Your task to perform on an android device: open app "Truecaller" (install if not already installed) Image 0: 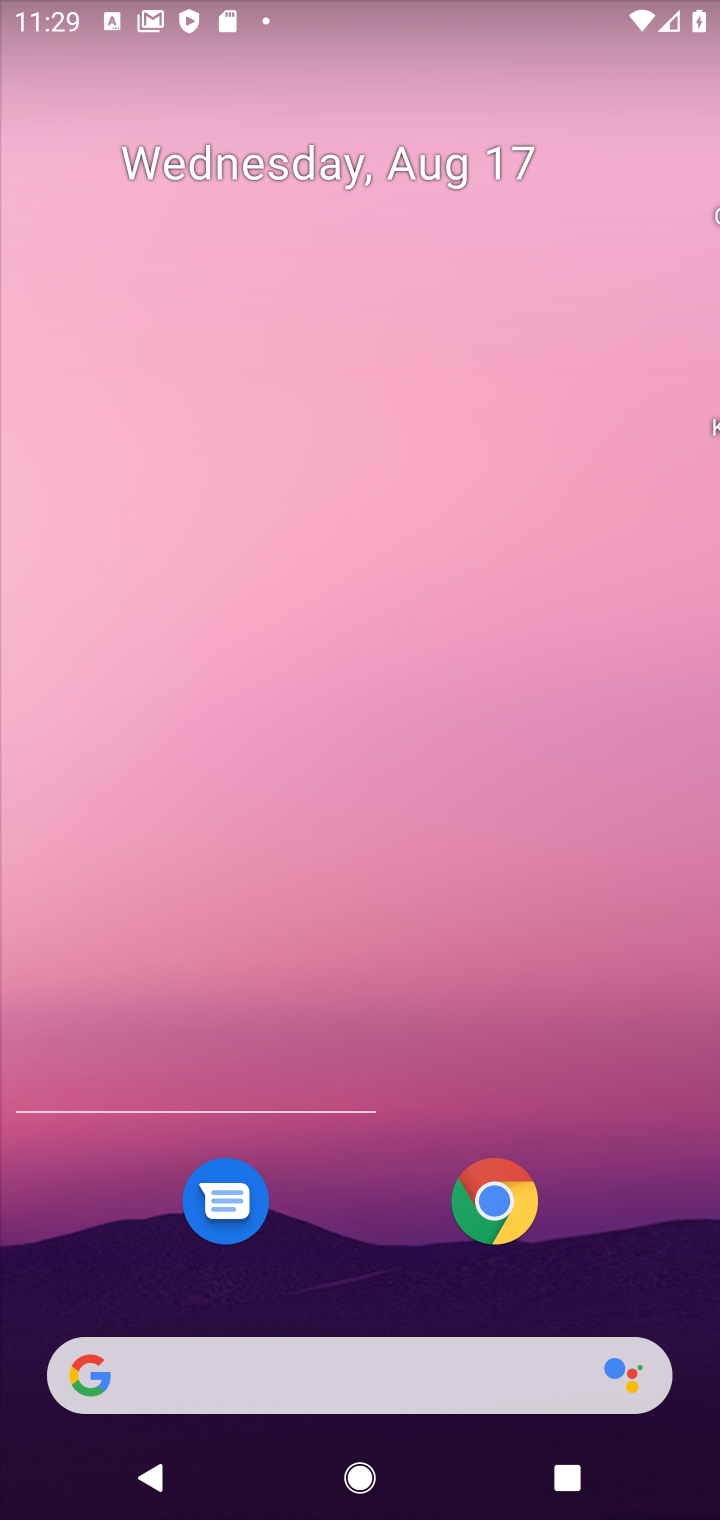
Step 0: press home button
Your task to perform on an android device: open app "Truecaller" (install if not already installed) Image 1: 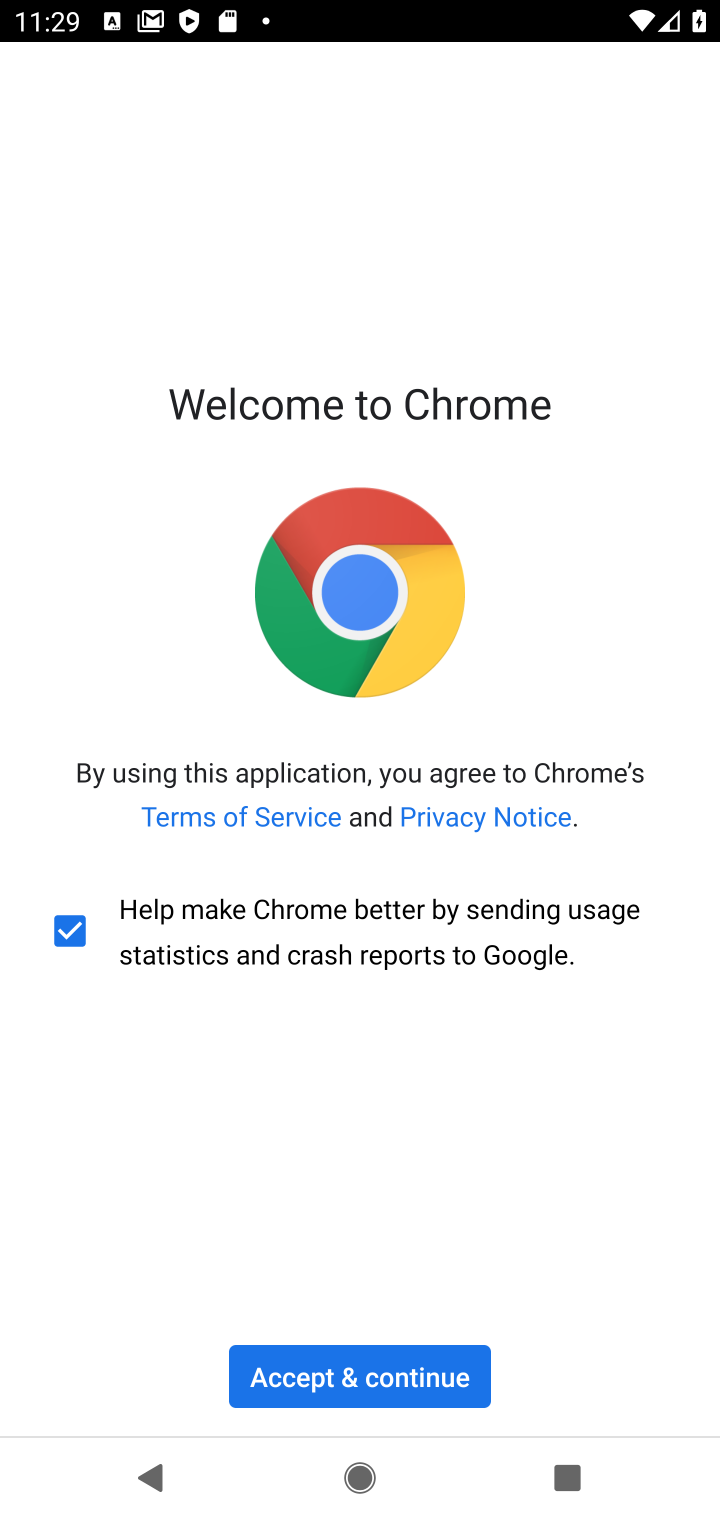
Step 1: drag from (394, 1267) to (445, 161)
Your task to perform on an android device: open app "Truecaller" (install if not already installed) Image 2: 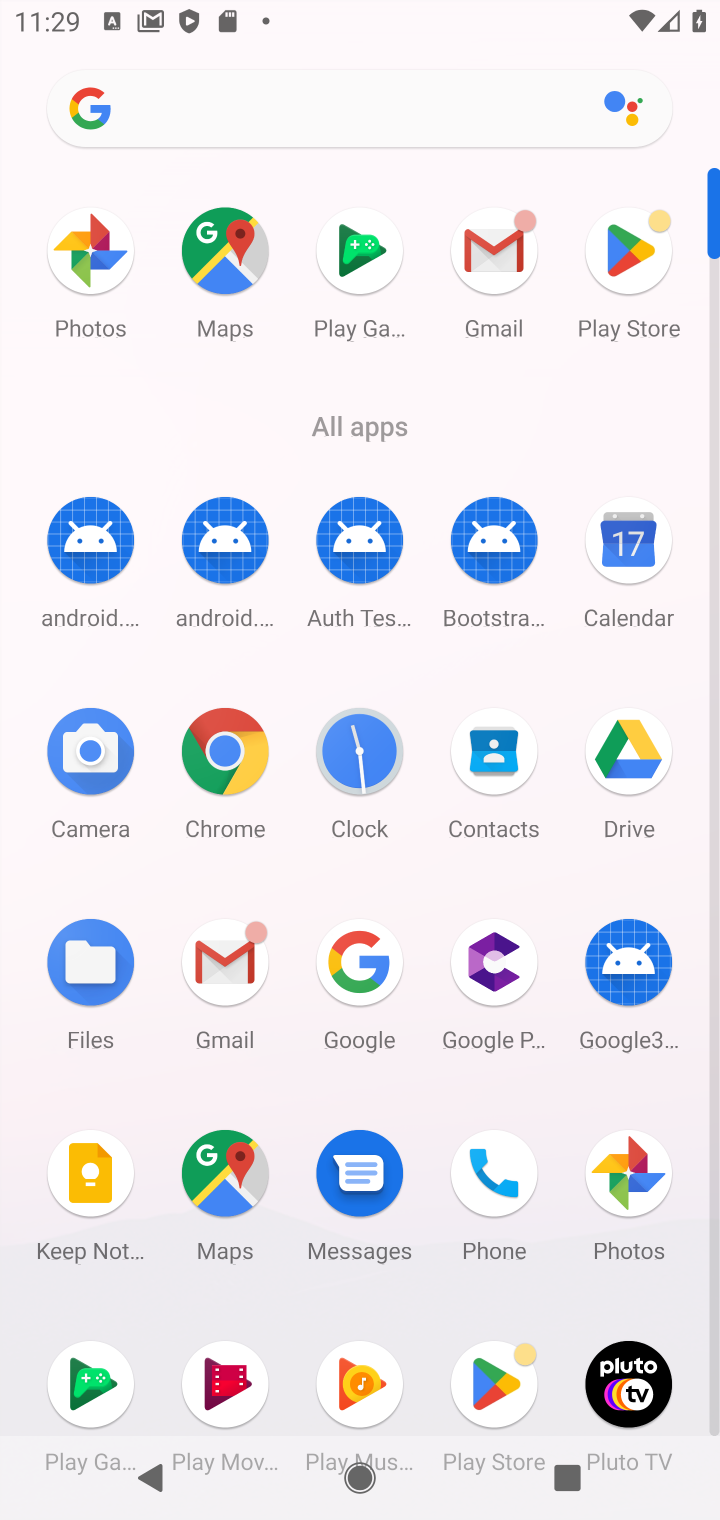
Step 2: click (639, 269)
Your task to perform on an android device: open app "Truecaller" (install if not already installed) Image 3: 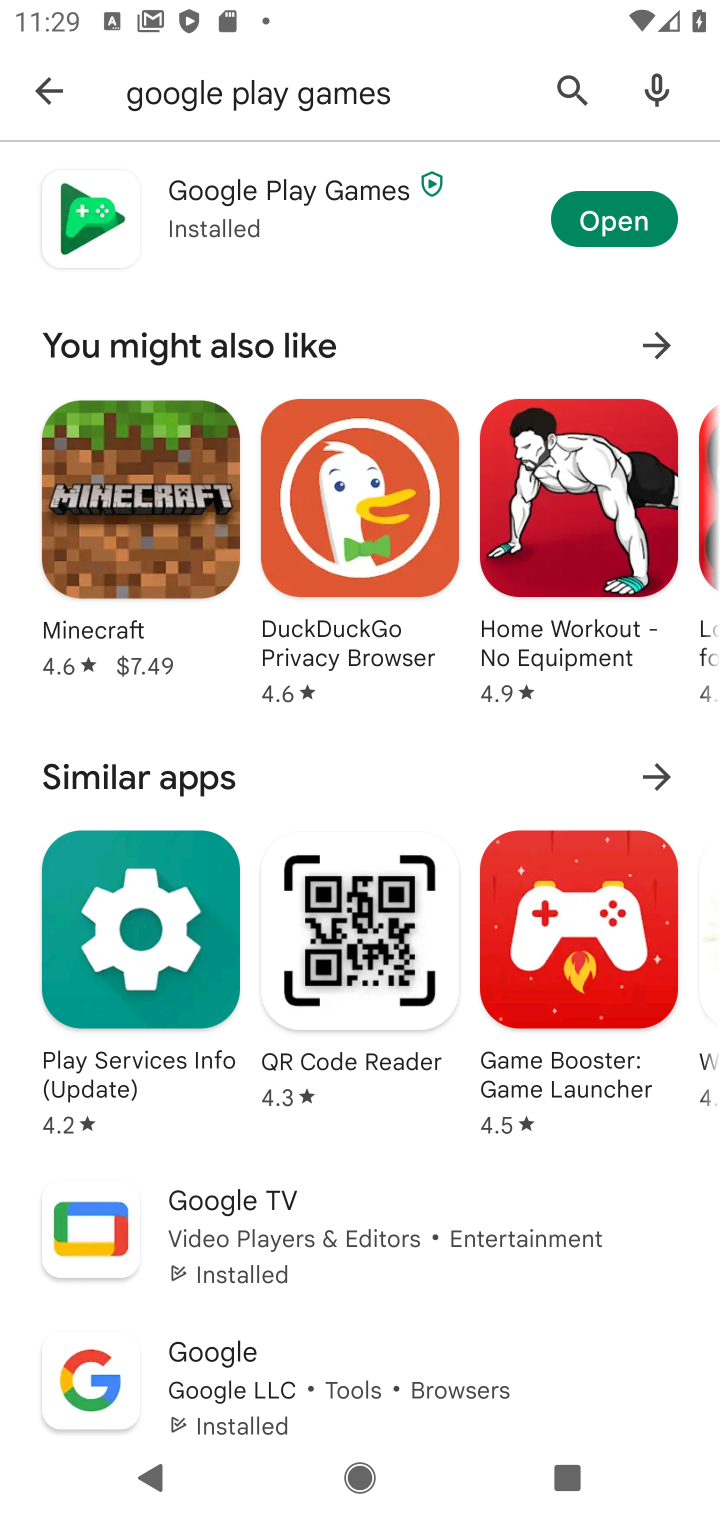
Step 3: click (239, 102)
Your task to perform on an android device: open app "Truecaller" (install if not already installed) Image 4: 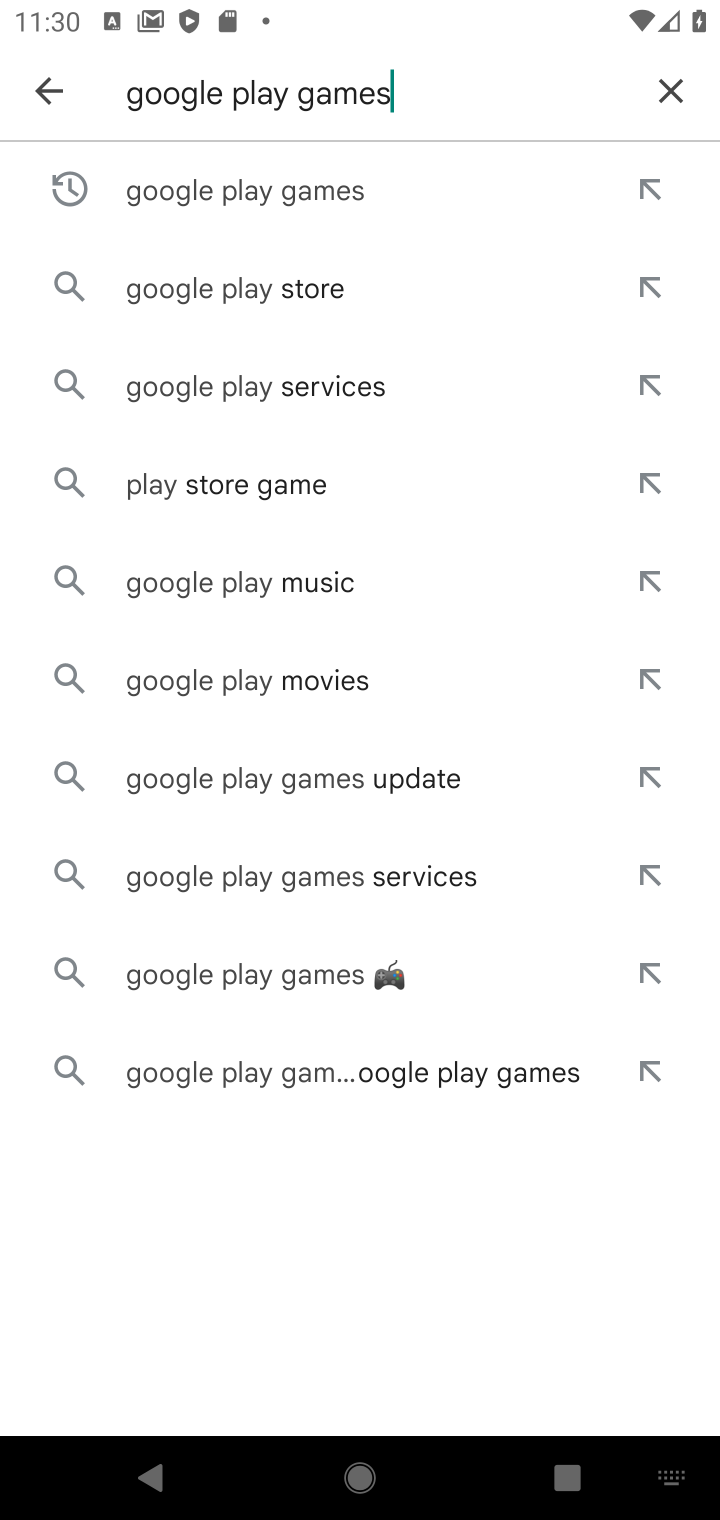
Step 4: click (691, 88)
Your task to perform on an android device: open app "Truecaller" (install if not already installed) Image 5: 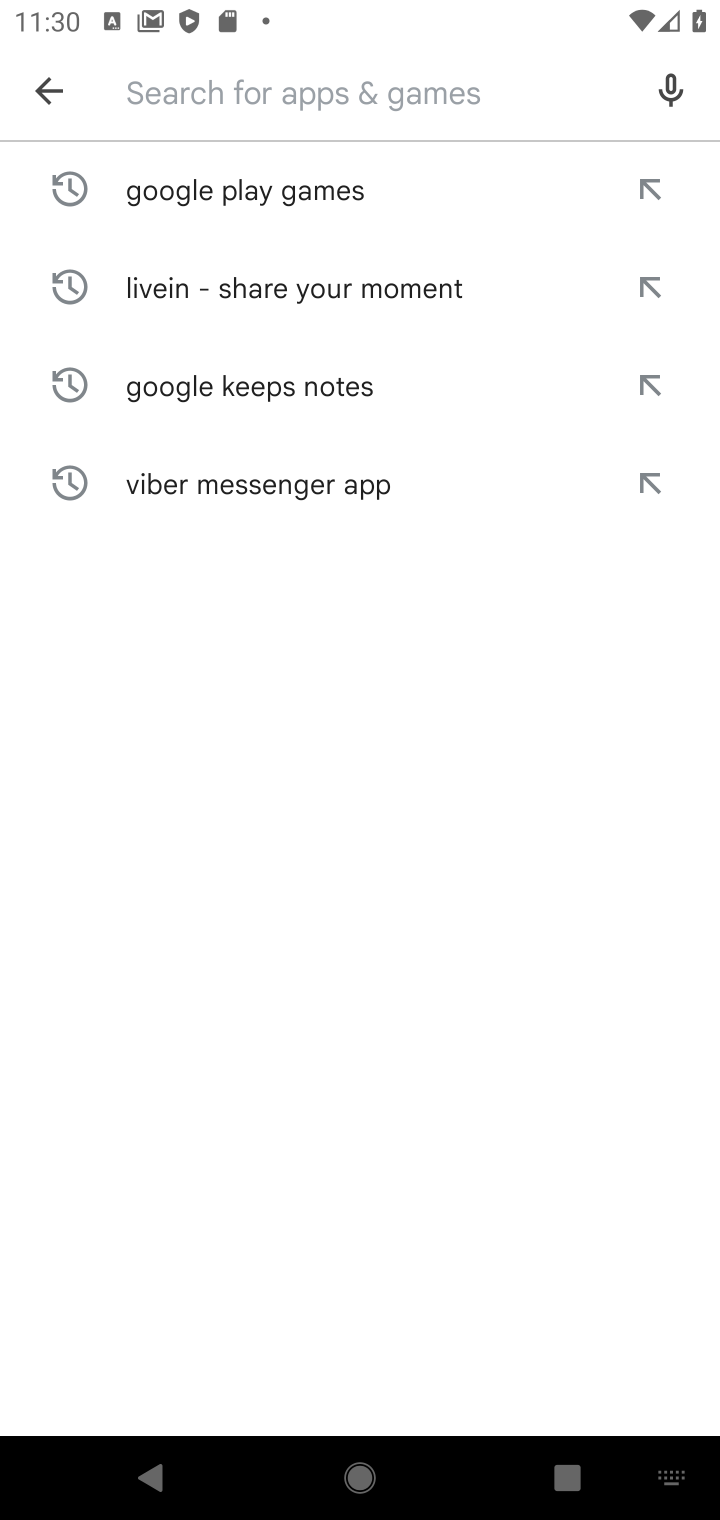
Step 5: type "truecaller"
Your task to perform on an android device: open app "Truecaller" (install if not already installed) Image 6: 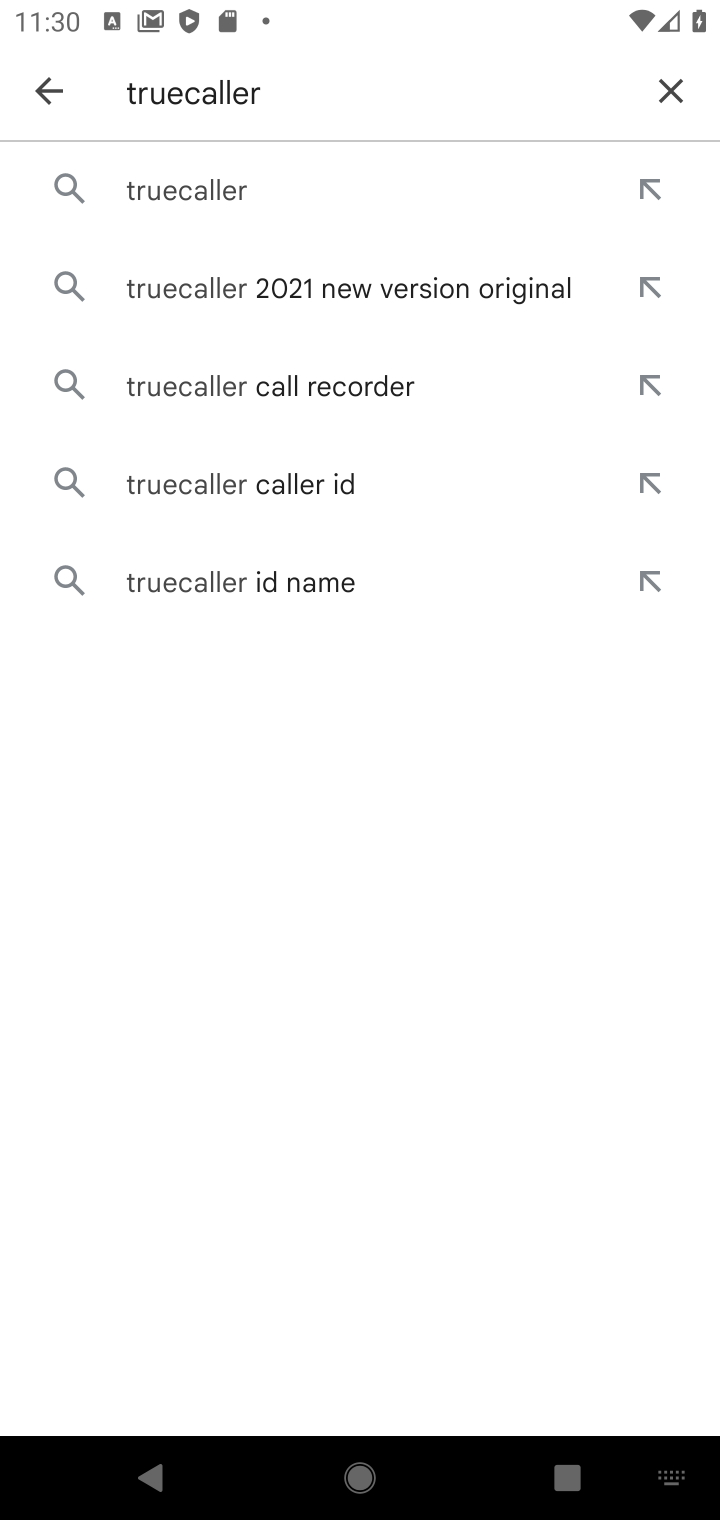
Step 6: click (221, 179)
Your task to perform on an android device: open app "Truecaller" (install if not already installed) Image 7: 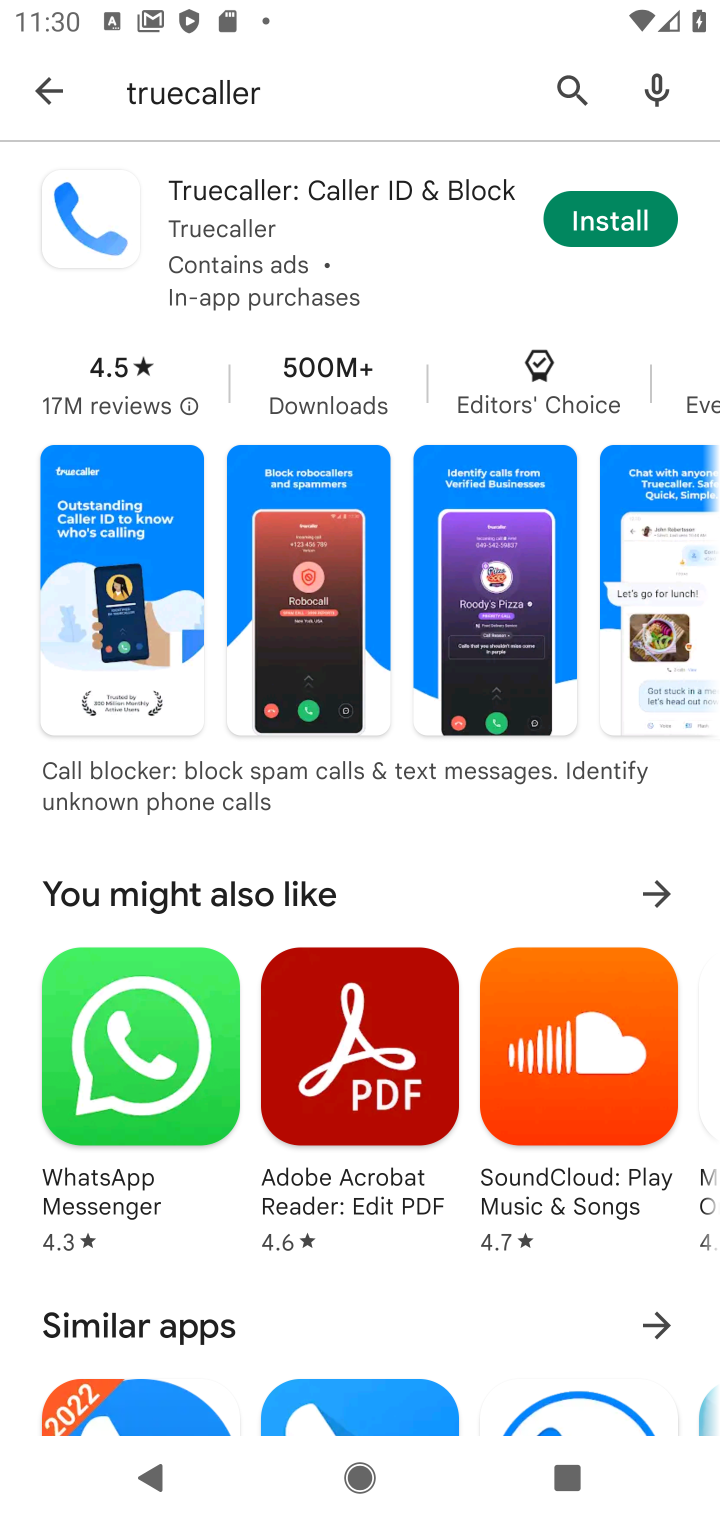
Step 7: click (591, 217)
Your task to perform on an android device: open app "Truecaller" (install if not already installed) Image 8: 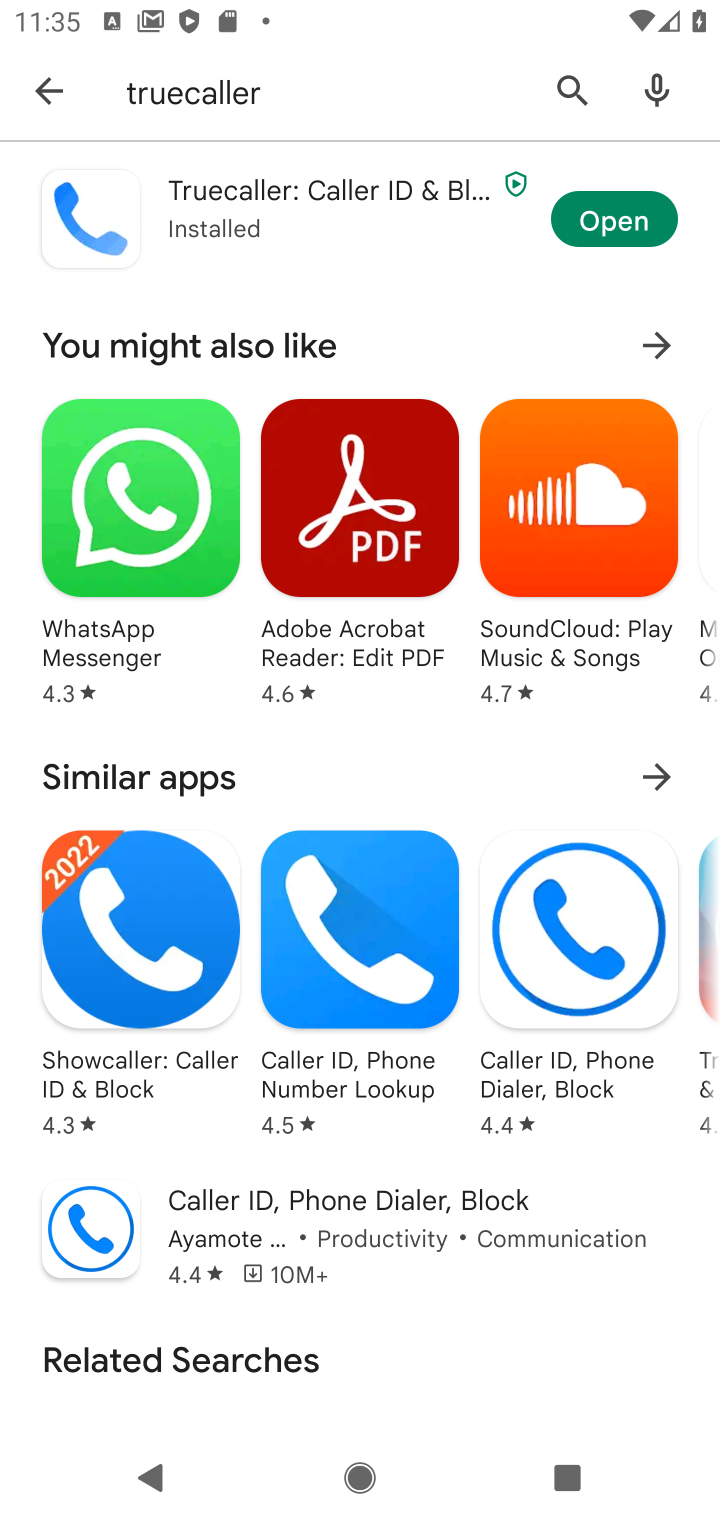
Step 8: click (599, 240)
Your task to perform on an android device: open app "Truecaller" (install if not already installed) Image 9: 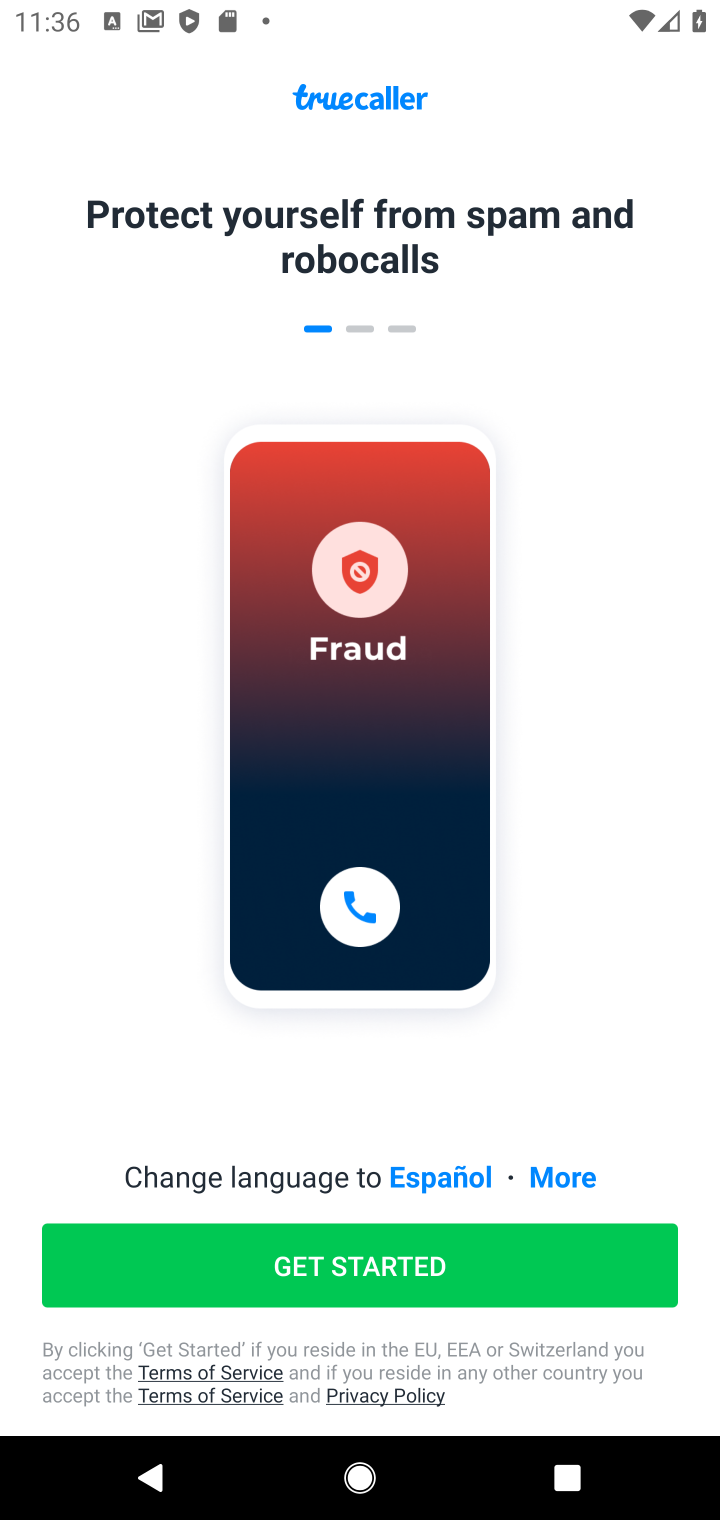
Step 9: click (557, 1249)
Your task to perform on an android device: open app "Truecaller" (install if not already installed) Image 10: 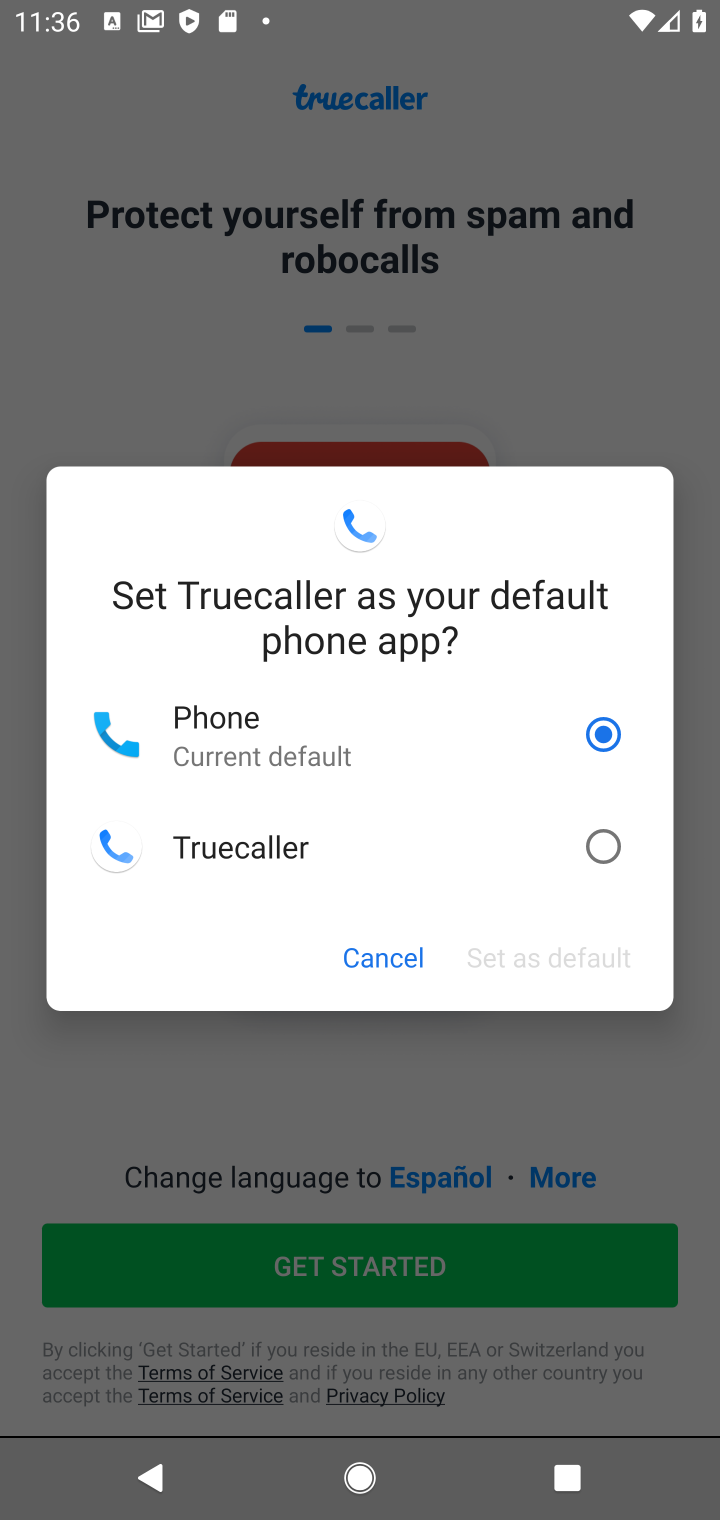
Step 10: click (592, 840)
Your task to perform on an android device: open app "Truecaller" (install if not already installed) Image 11: 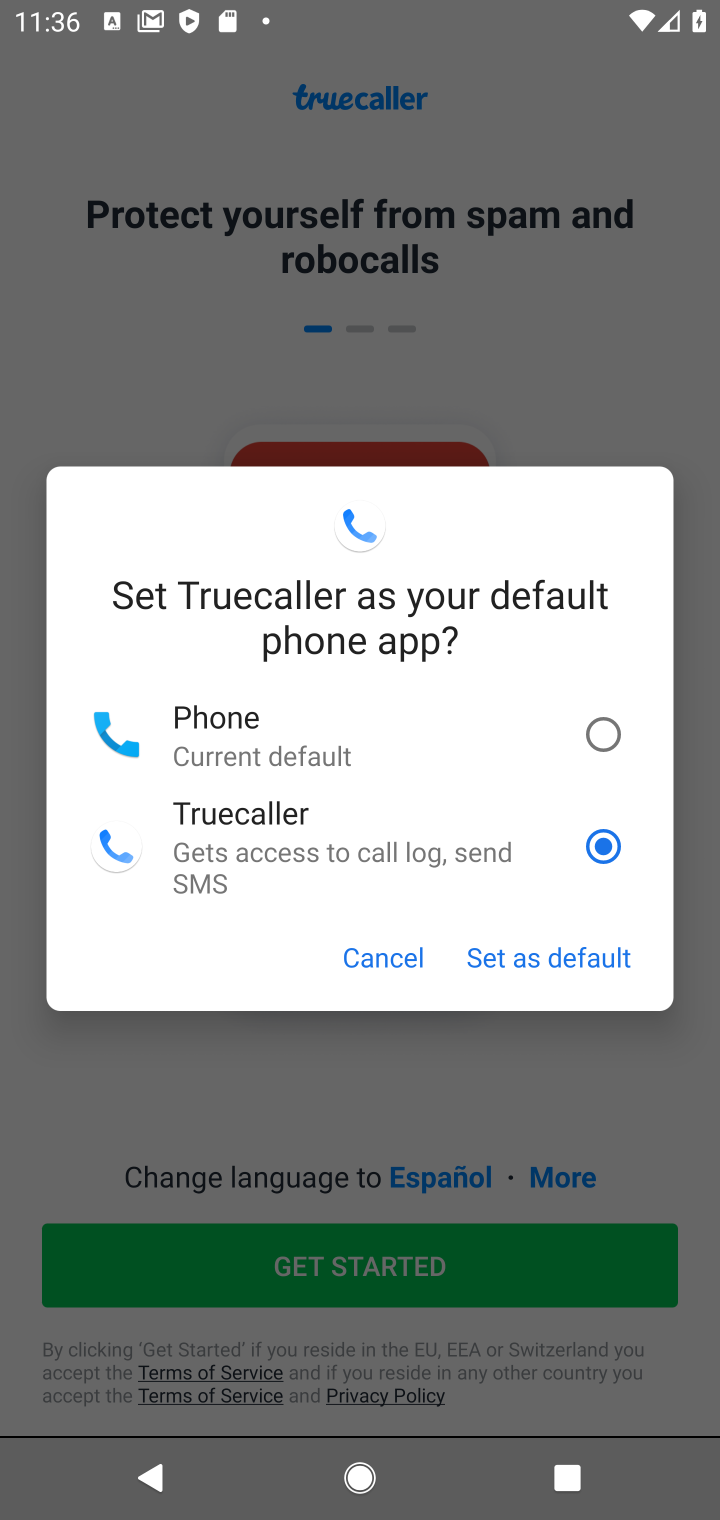
Step 11: click (583, 964)
Your task to perform on an android device: open app "Truecaller" (install if not already installed) Image 12: 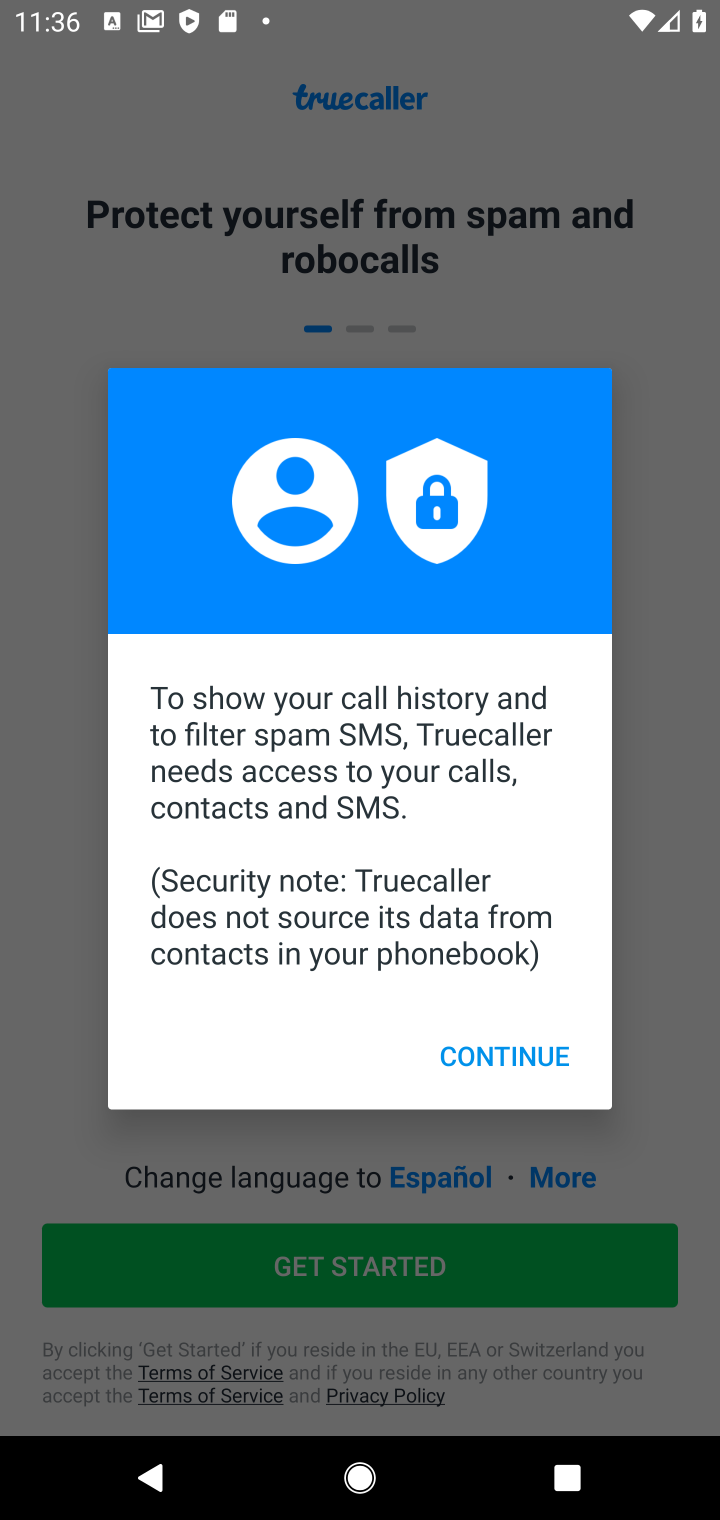
Step 12: click (527, 1045)
Your task to perform on an android device: open app "Truecaller" (install if not already installed) Image 13: 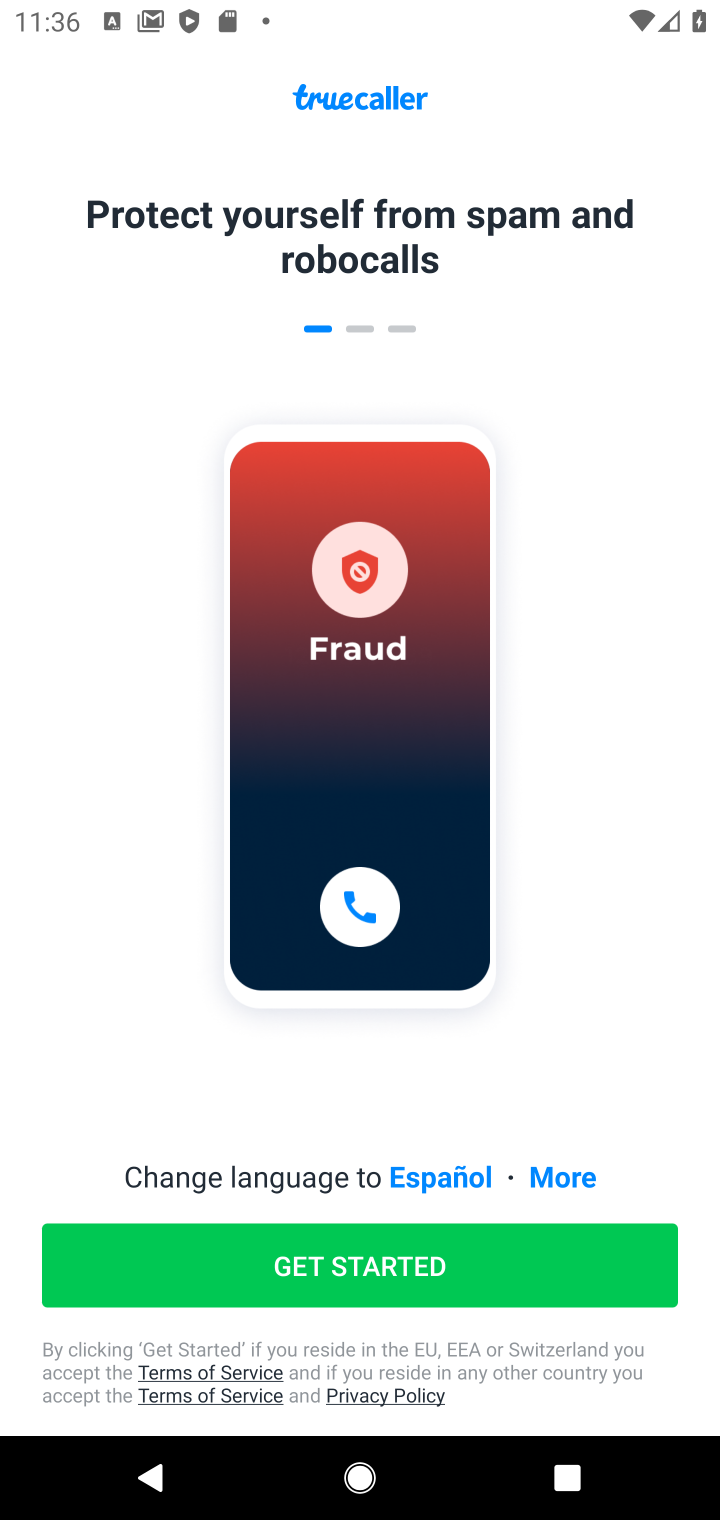
Step 13: click (434, 1254)
Your task to perform on an android device: open app "Truecaller" (install if not already installed) Image 14: 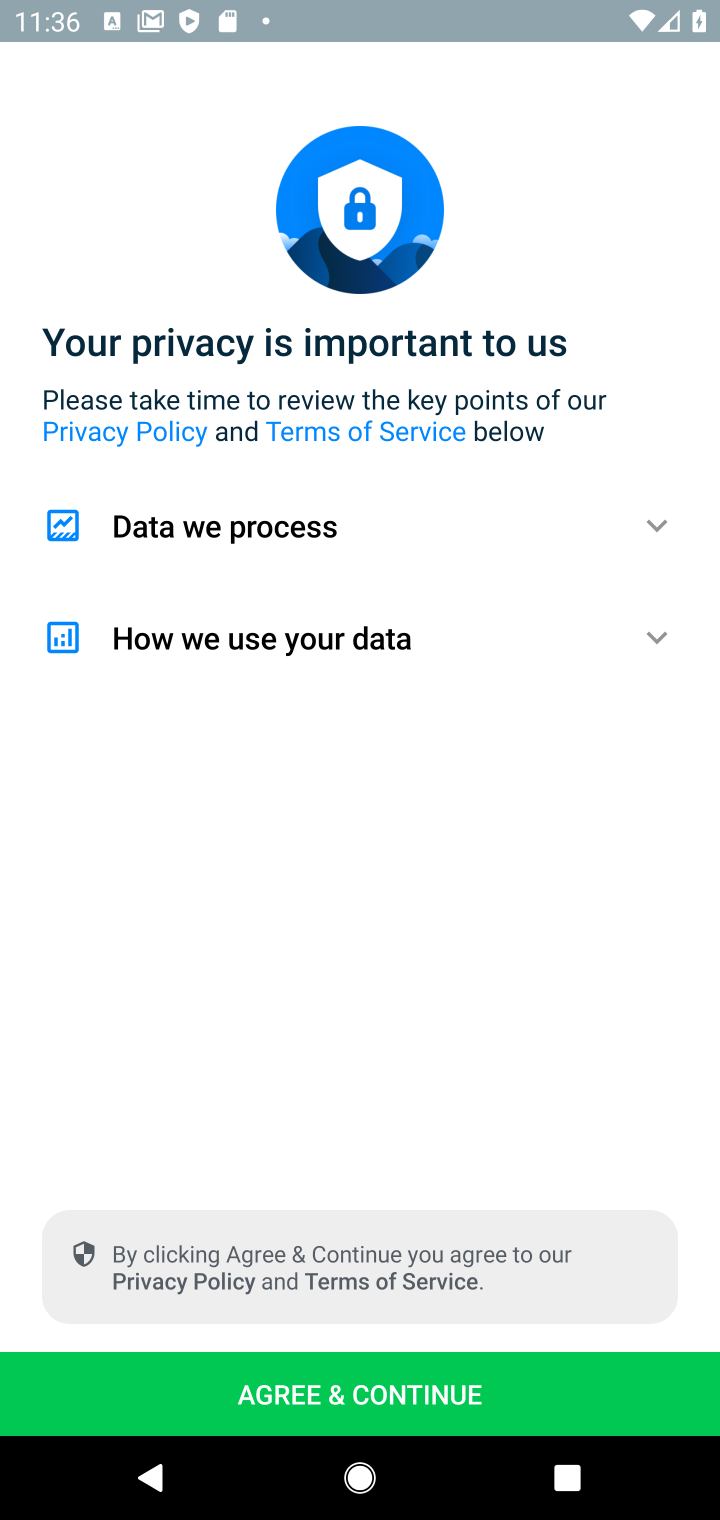
Step 14: click (383, 1389)
Your task to perform on an android device: open app "Truecaller" (install if not already installed) Image 15: 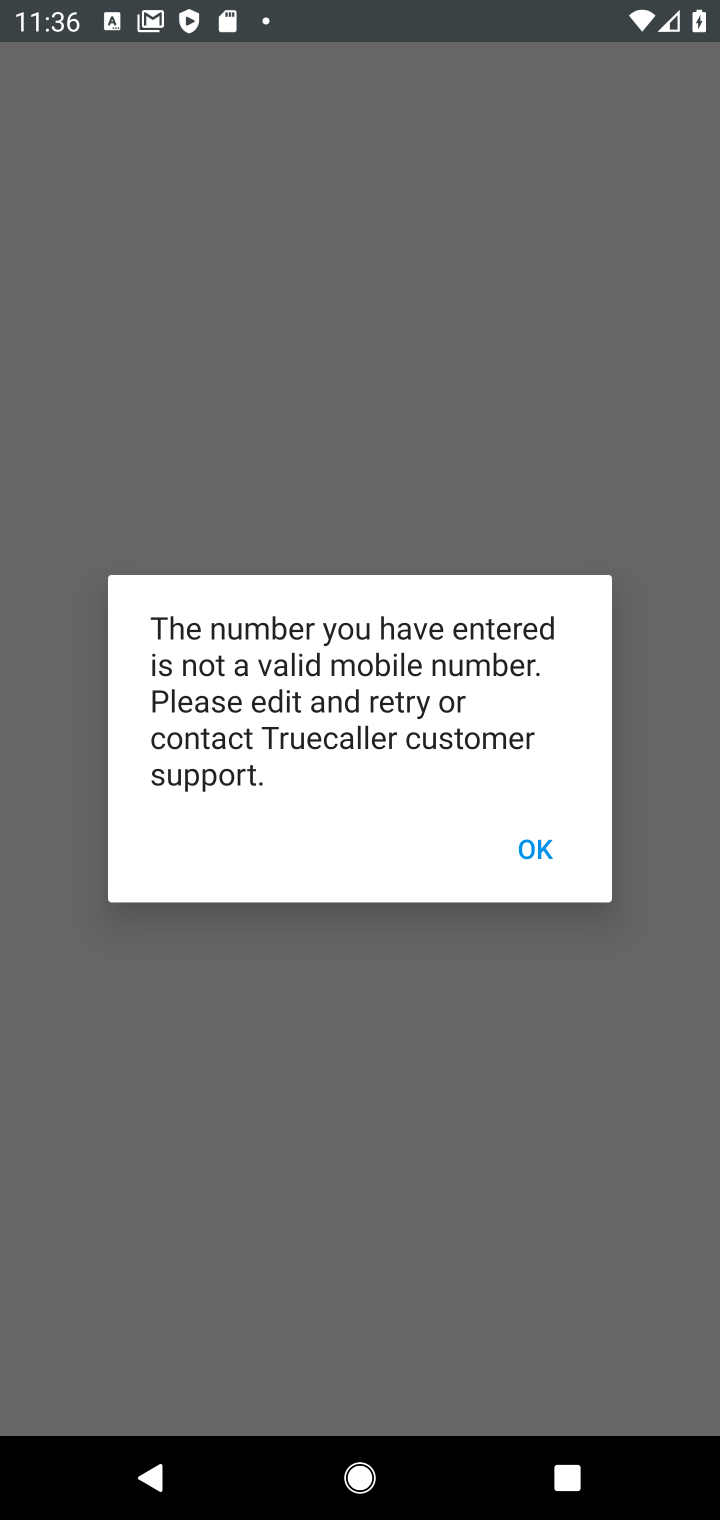
Step 15: click (534, 845)
Your task to perform on an android device: open app "Truecaller" (install if not already installed) Image 16: 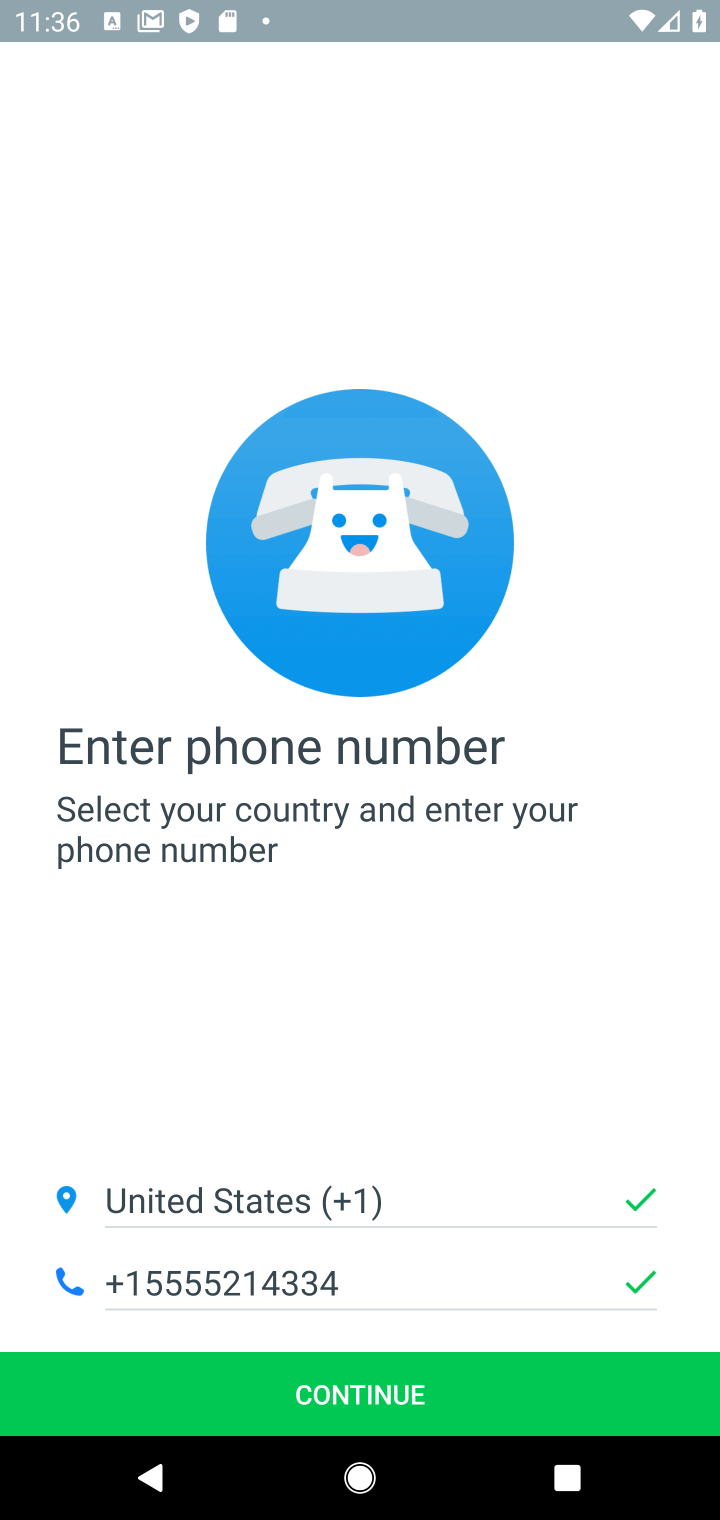
Step 16: click (352, 1399)
Your task to perform on an android device: open app "Truecaller" (install if not already installed) Image 17: 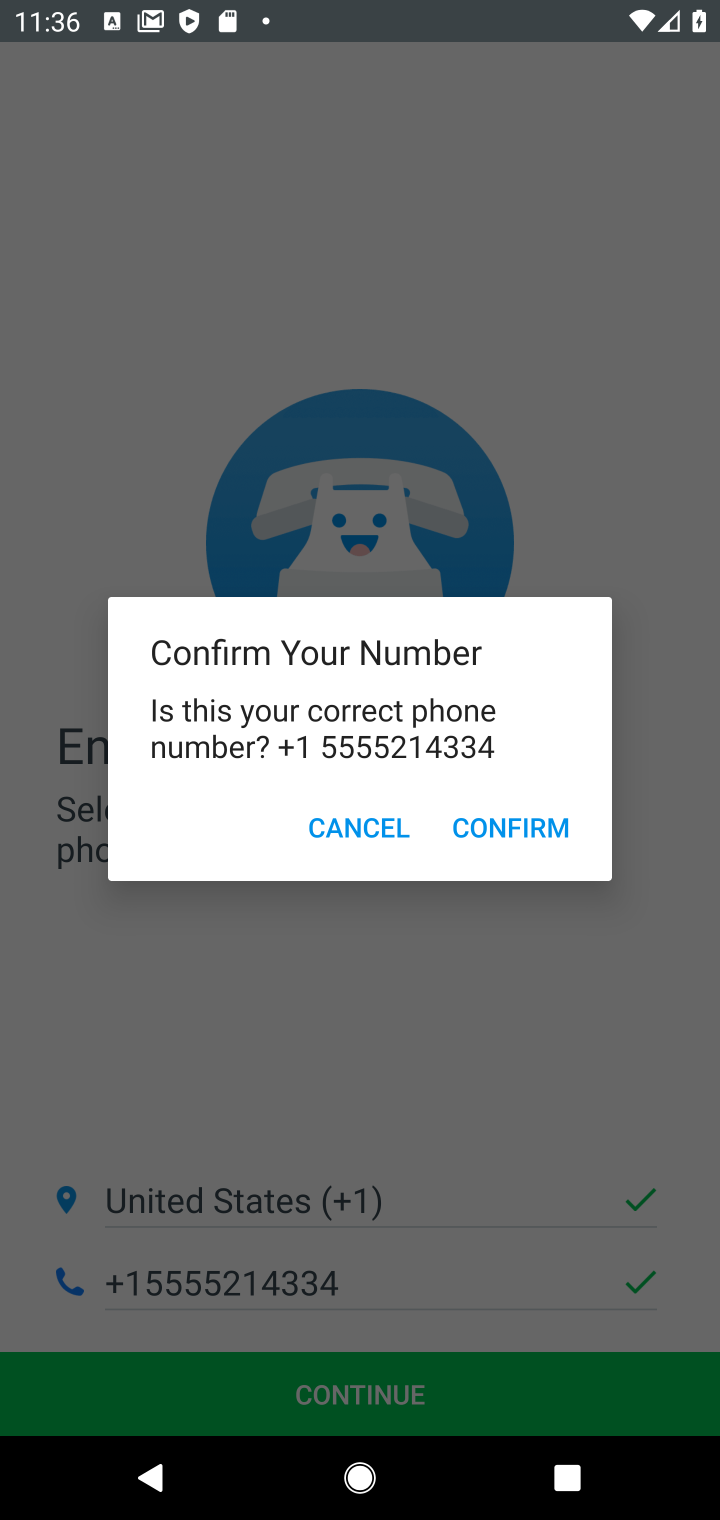
Step 17: click (509, 831)
Your task to perform on an android device: open app "Truecaller" (install if not already installed) Image 18: 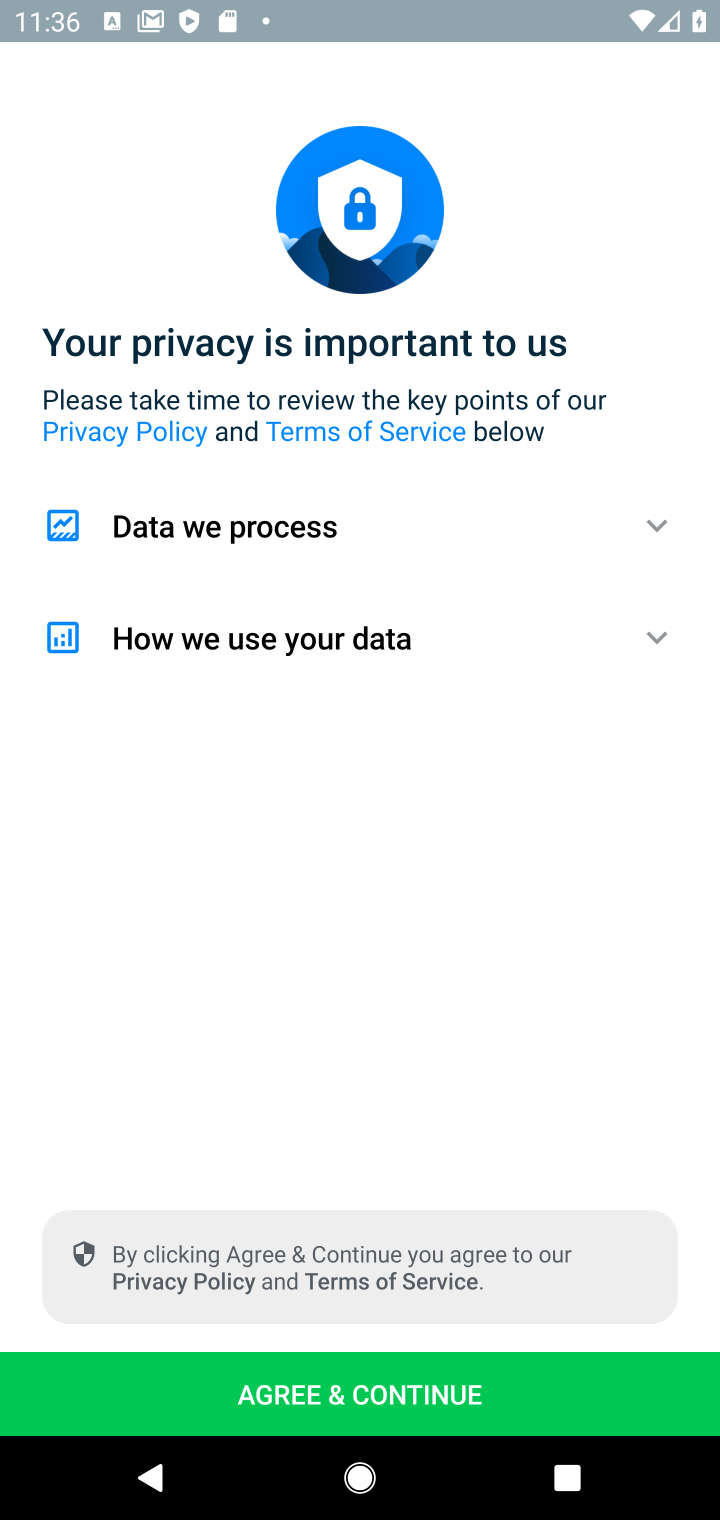
Step 18: click (370, 1405)
Your task to perform on an android device: open app "Truecaller" (install if not already installed) Image 19: 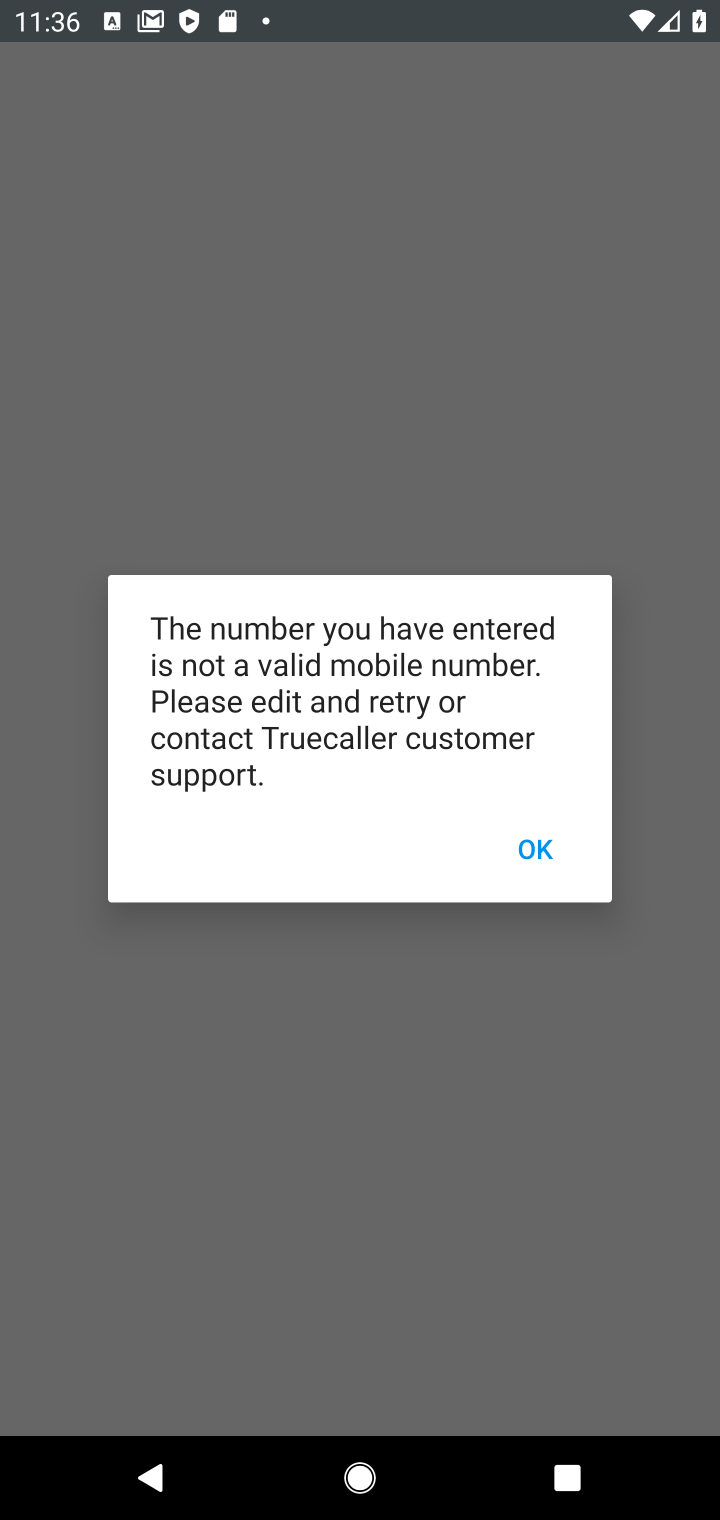
Step 19: click (537, 850)
Your task to perform on an android device: open app "Truecaller" (install if not already installed) Image 20: 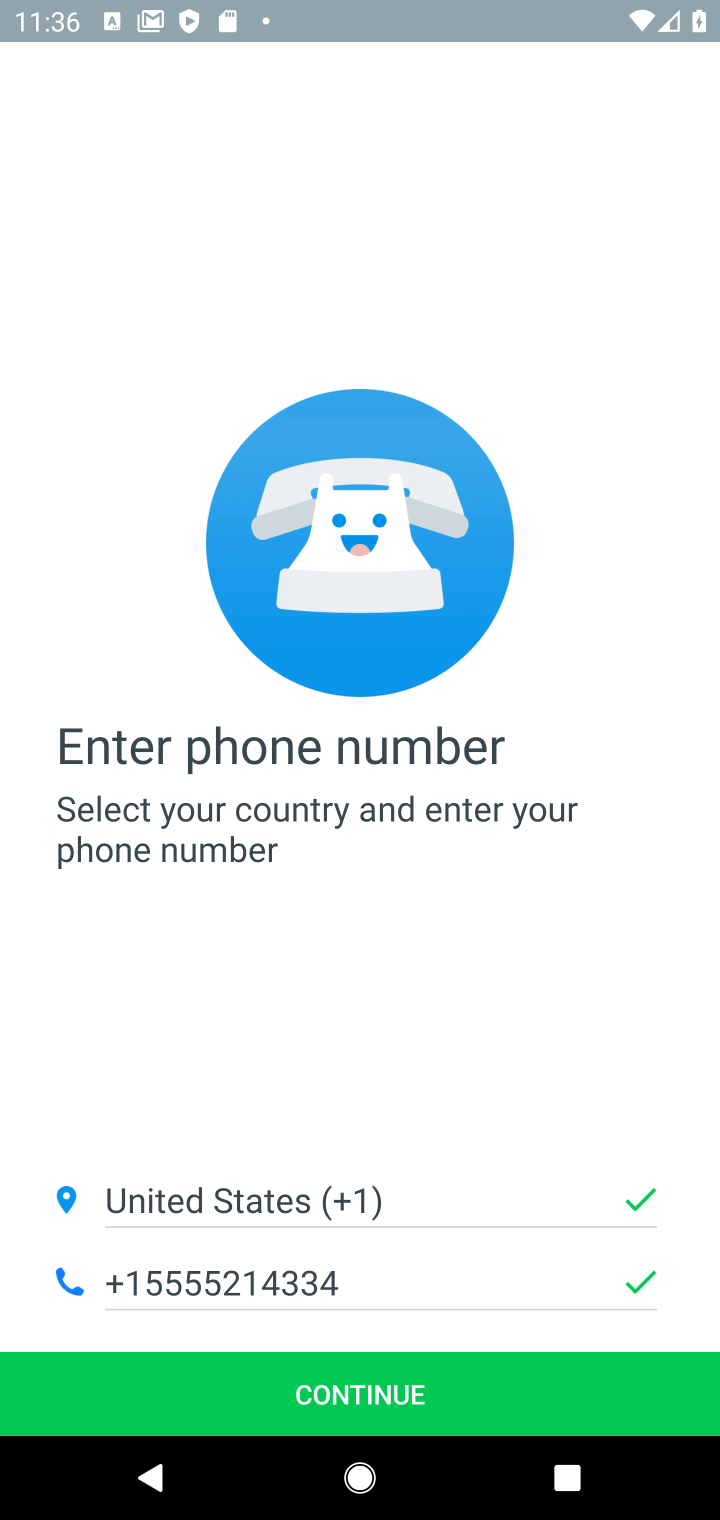
Step 20: task complete